Your task to perform on an android device: Search for macbook on amazon.com, select the first entry, and add it to the cart. Image 0: 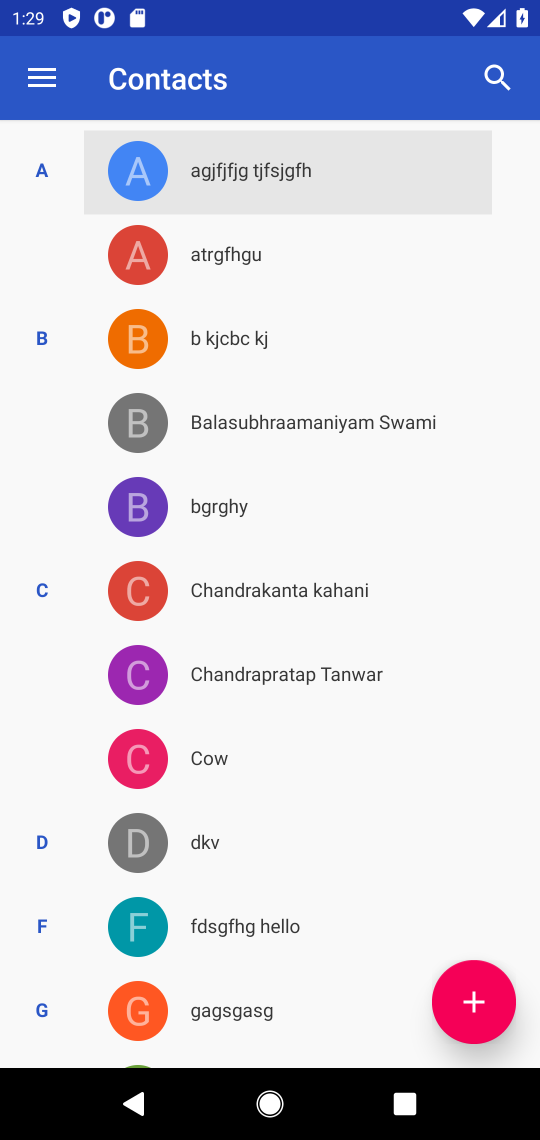
Step 0: press home button
Your task to perform on an android device: Search for macbook on amazon.com, select the first entry, and add it to the cart. Image 1: 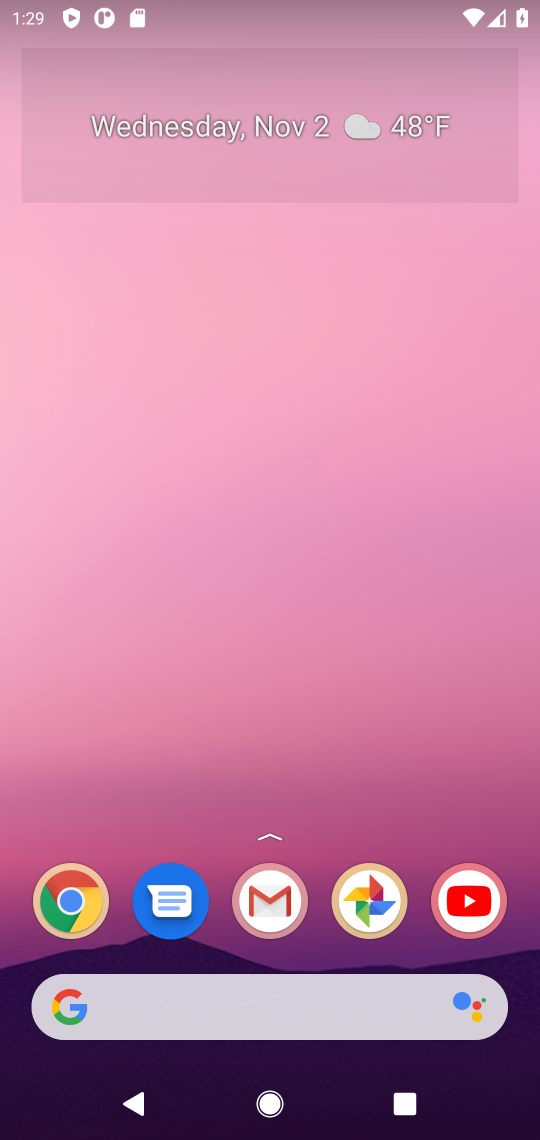
Step 1: drag from (317, 942) to (466, 219)
Your task to perform on an android device: Search for macbook on amazon.com, select the first entry, and add it to the cart. Image 2: 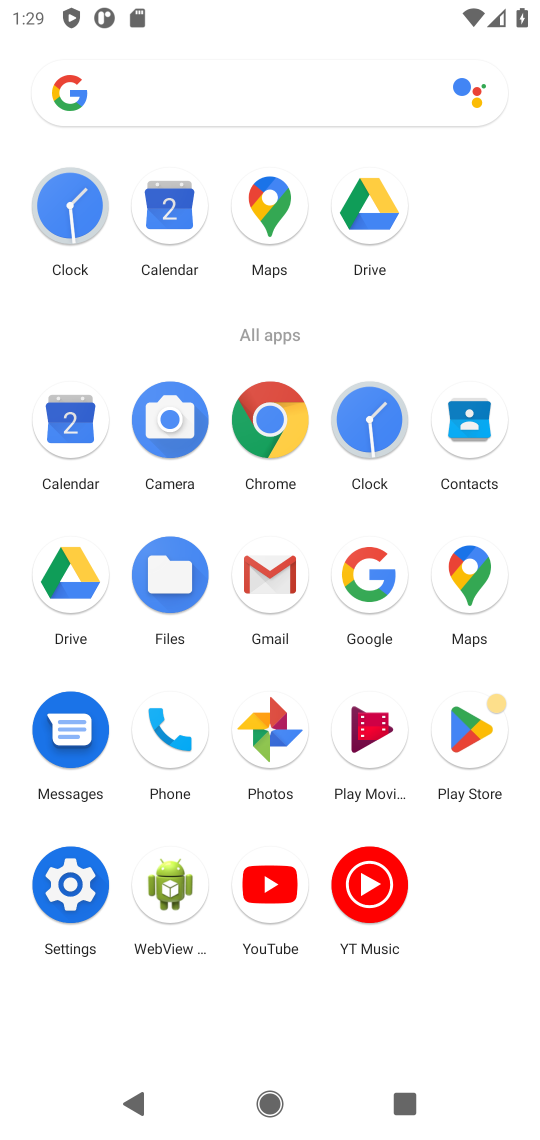
Step 2: click (276, 420)
Your task to perform on an android device: Search for macbook on amazon.com, select the first entry, and add it to the cart. Image 3: 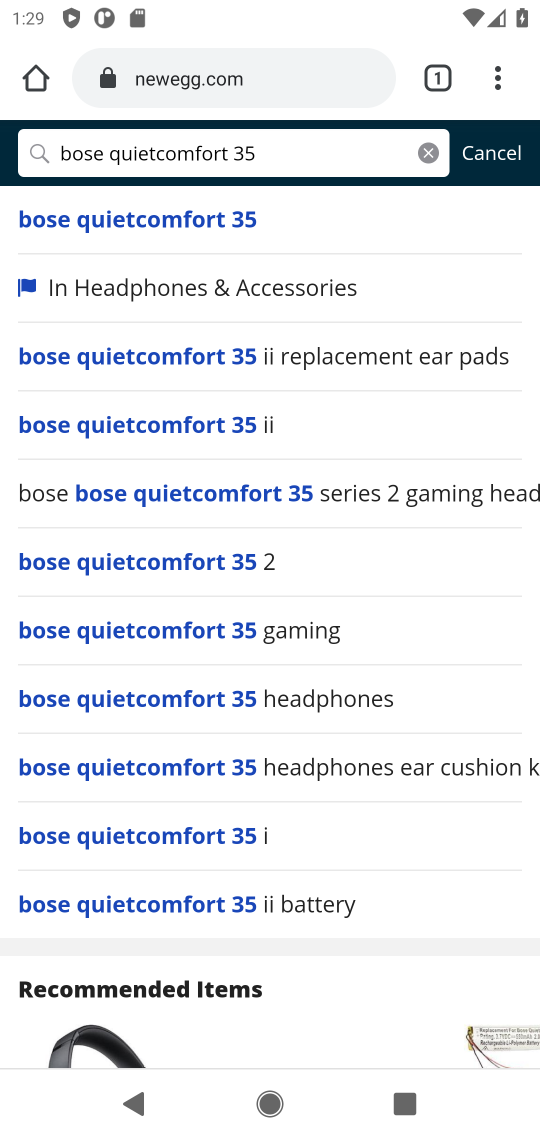
Step 3: click (379, 139)
Your task to perform on an android device: Search for macbook on amazon.com, select the first entry, and add it to the cart. Image 4: 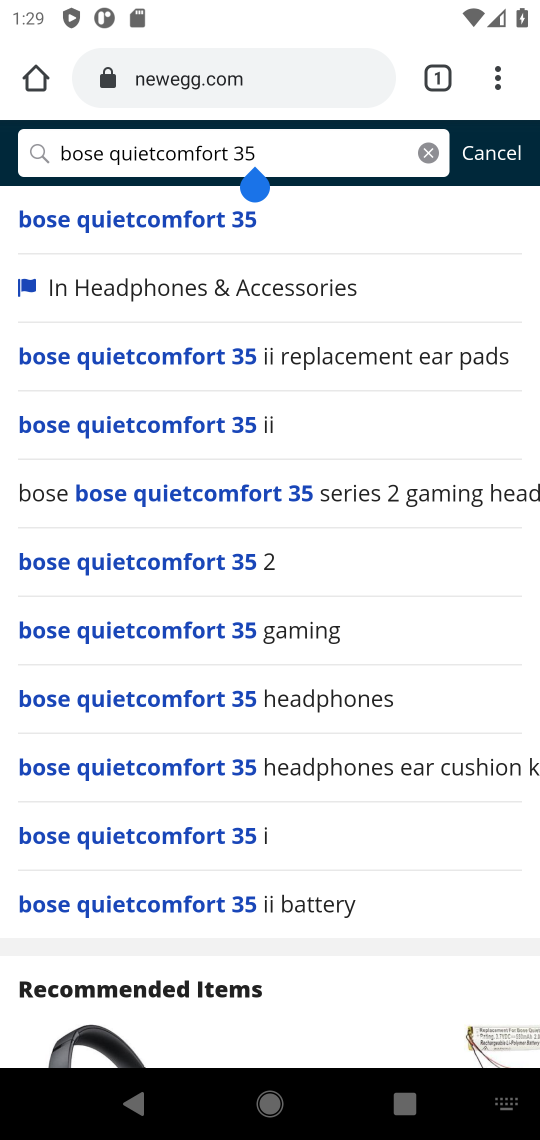
Step 4: click (446, 149)
Your task to perform on an android device: Search for macbook on amazon.com, select the first entry, and add it to the cart. Image 5: 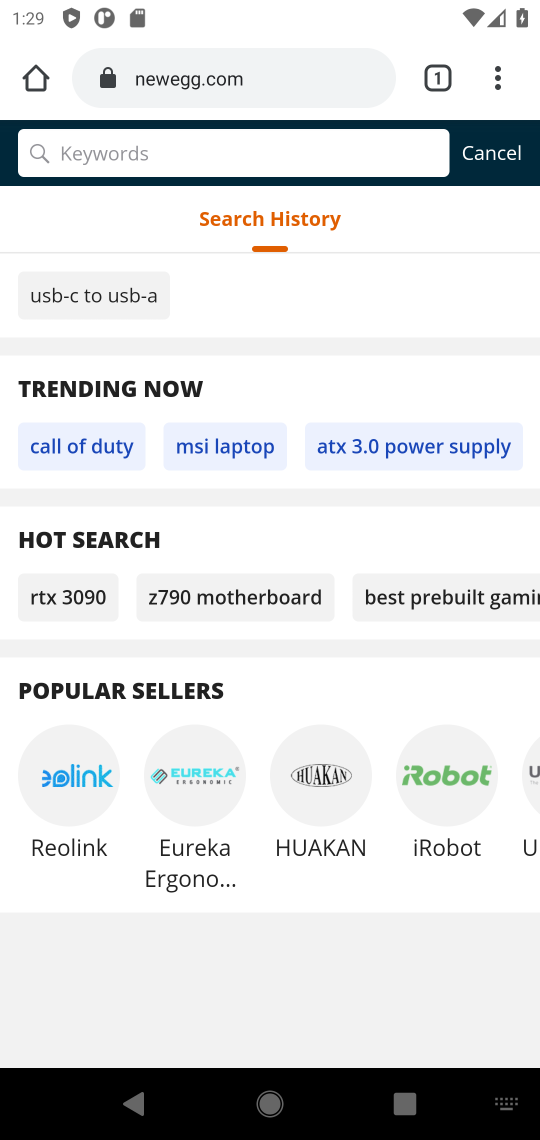
Step 5: type ""
Your task to perform on an android device: Search for macbook on amazon.com, select the first entry, and add it to the cart. Image 6: 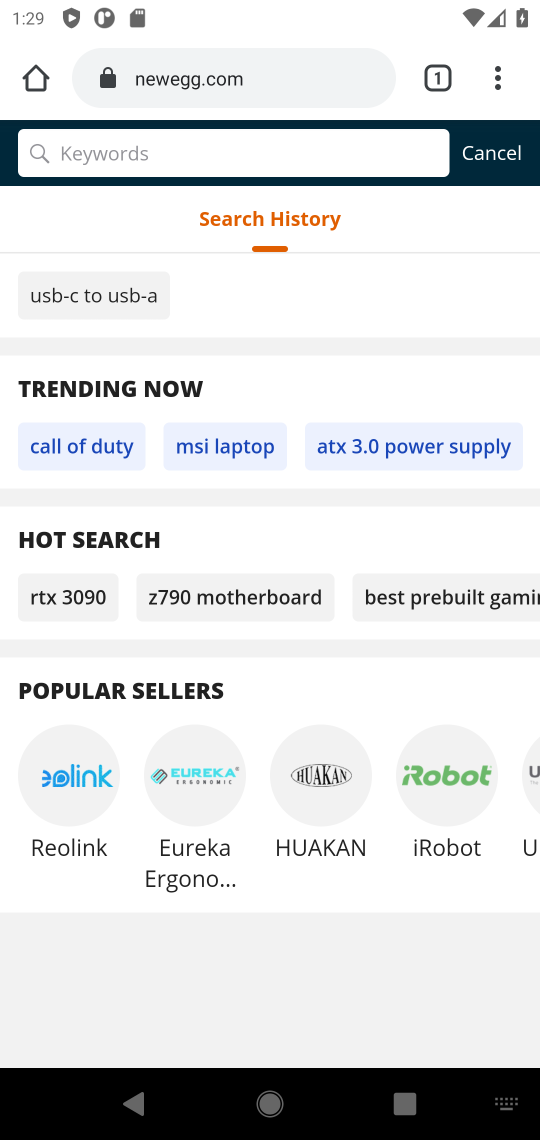
Step 6: type "macbook"
Your task to perform on an android device: Search for macbook on amazon.com, select the first entry, and add it to the cart. Image 7: 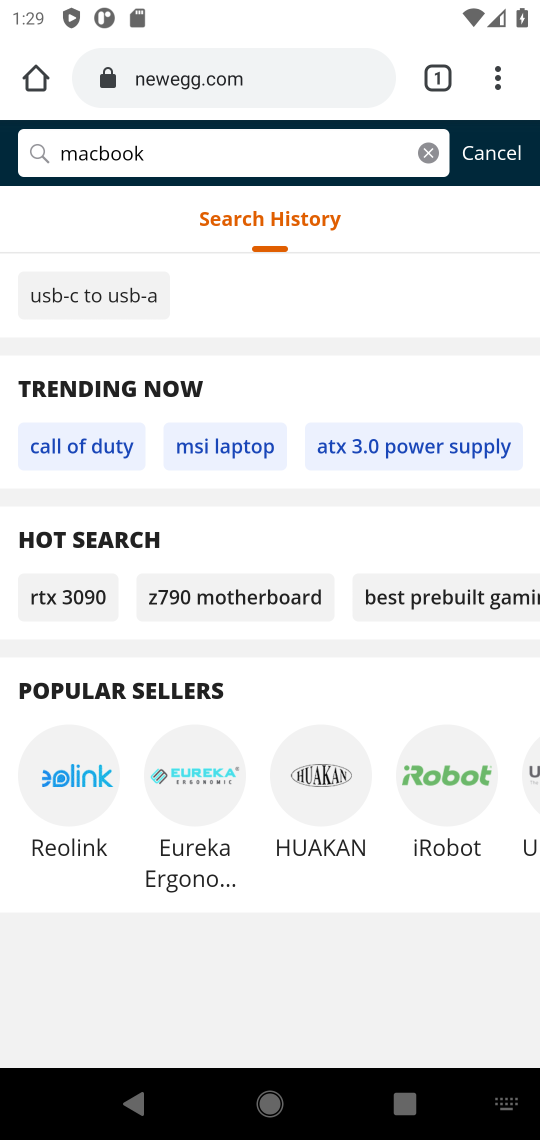
Step 7: press enter
Your task to perform on an android device: Search for macbook on amazon.com, select the first entry, and add it to the cart. Image 8: 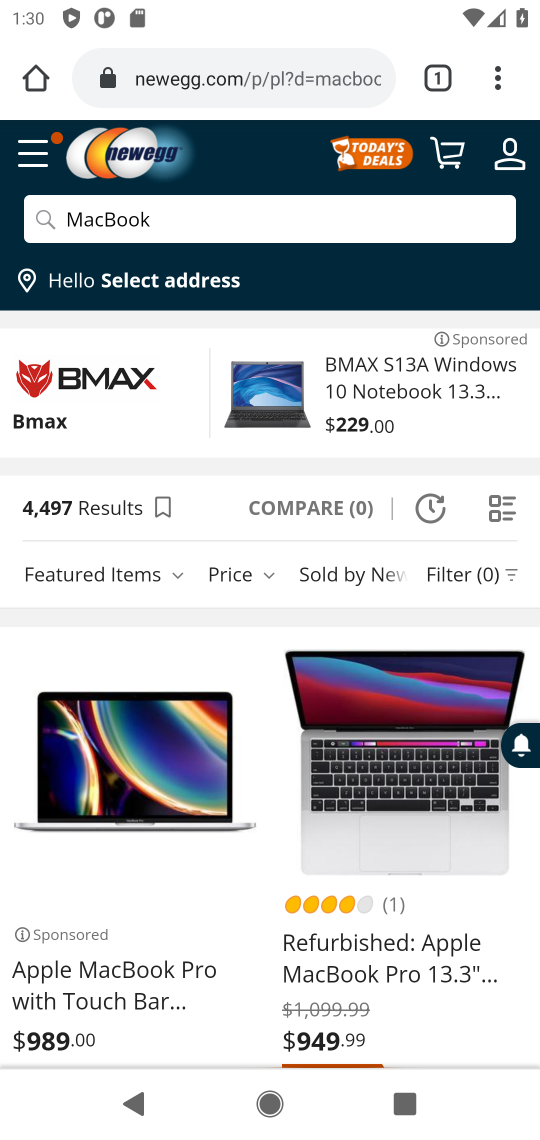
Step 8: click (478, 957)
Your task to perform on an android device: Search for macbook on amazon.com, select the first entry, and add it to the cart. Image 9: 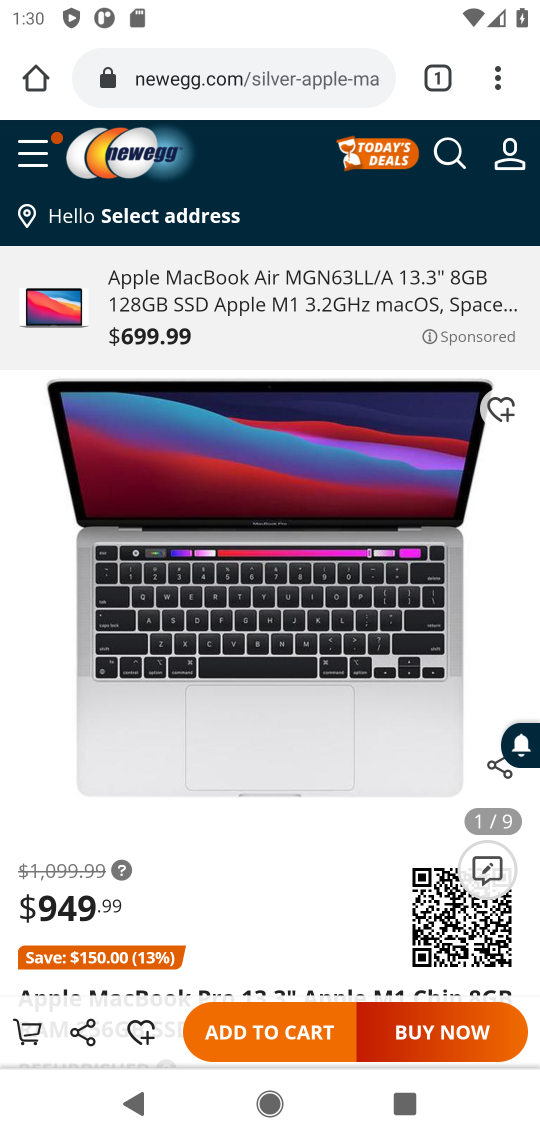
Step 9: click (272, 1027)
Your task to perform on an android device: Search for macbook on amazon.com, select the first entry, and add it to the cart. Image 10: 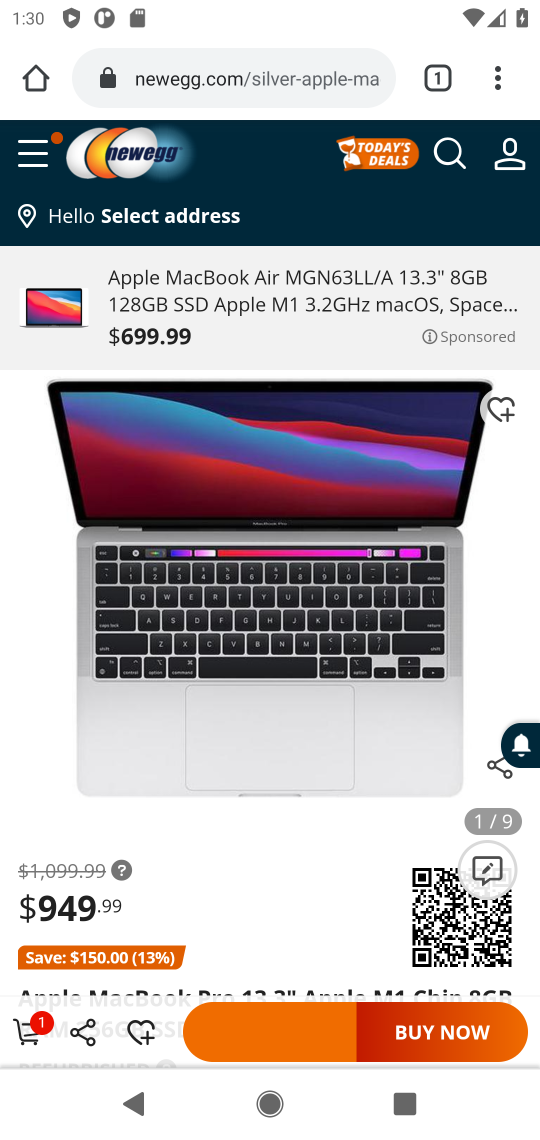
Step 10: task complete